Your task to perform on an android device: find which apps use the phone's location Image 0: 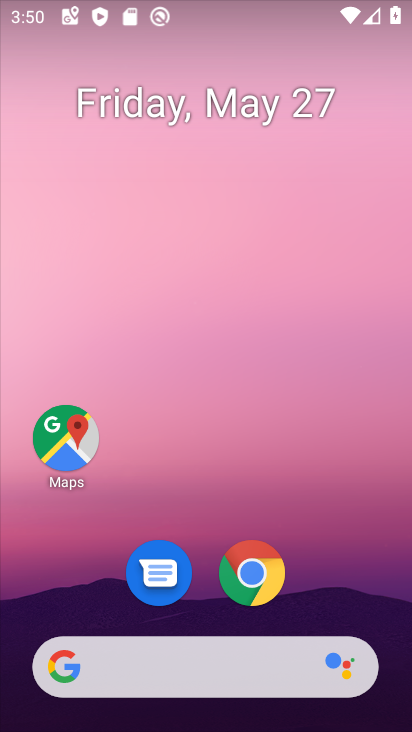
Step 0: drag from (350, 578) to (290, 49)
Your task to perform on an android device: find which apps use the phone's location Image 1: 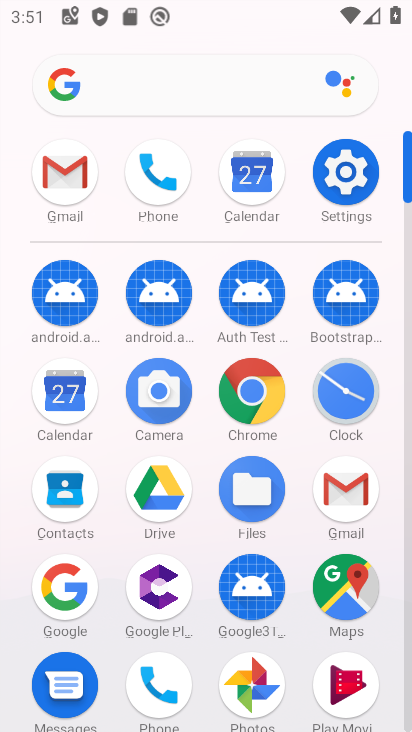
Step 1: click (338, 166)
Your task to perform on an android device: find which apps use the phone's location Image 2: 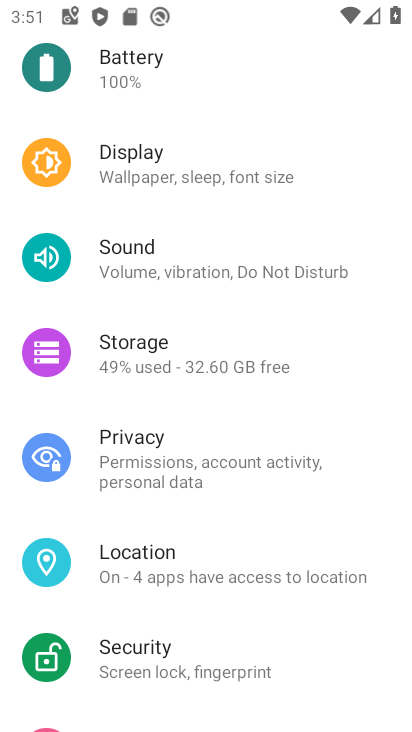
Step 2: click (261, 555)
Your task to perform on an android device: find which apps use the phone's location Image 3: 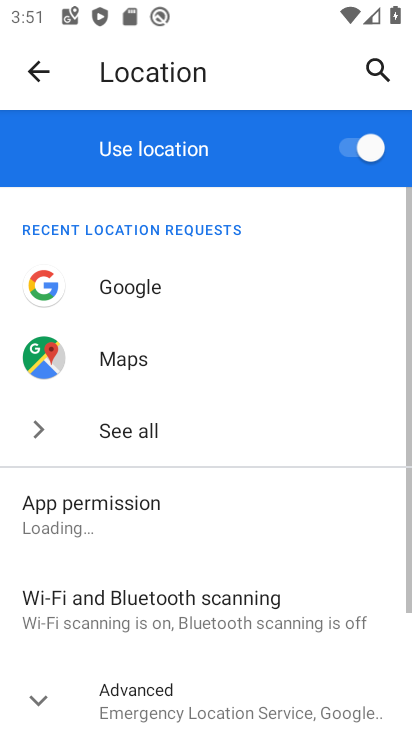
Step 3: click (109, 506)
Your task to perform on an android device: find which apps use the phone's location Image 4: 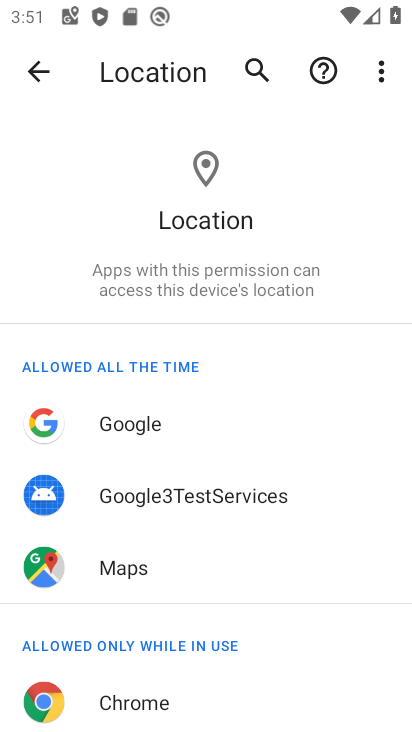
Step 4: task complete